Your task to perform on an android device: Do I have any events this weekend? Image 0: 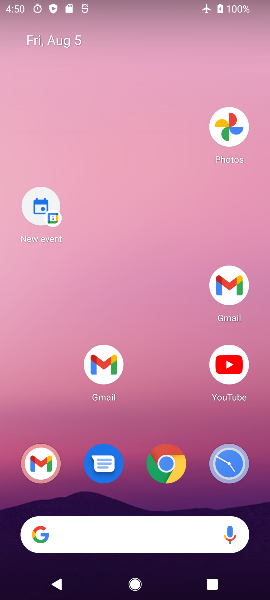
Step 0: drag from (160, 570) to (45, 88)
Your task to perform on an android device: Do I have any events this weekend? Image 1: 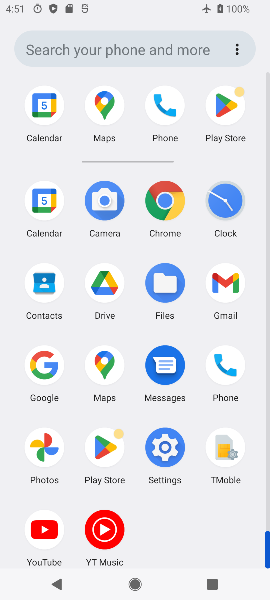
Step 1: click (43, 109)
Your task to perform on an android device: Do I have any events this weekend? Image 2: 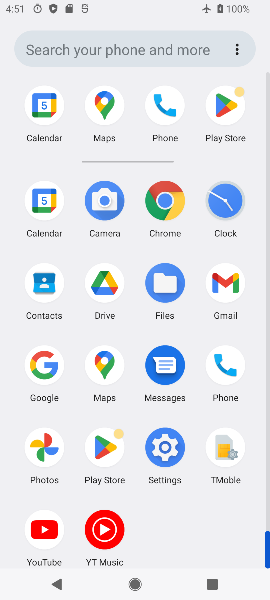
Step 2: click (43, 109)
Your task to perform on an android device: Do I have any events this weekend? Image 3: 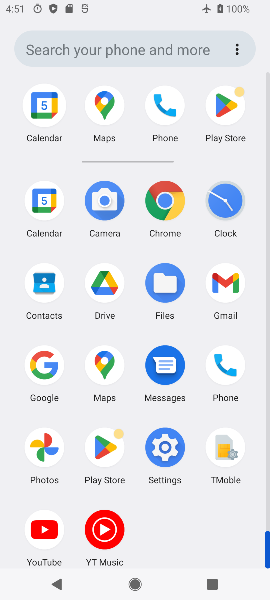
Step 3: click (42, 108)
Your task to perform on an android device: Do I have any events this weekend? Image 4: 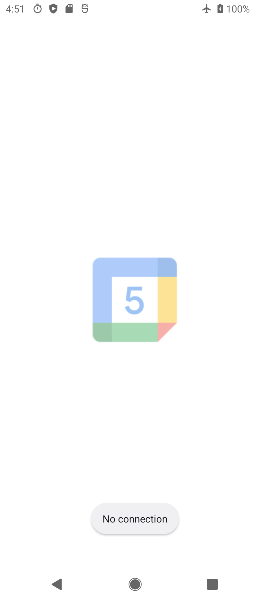
Step 4: click (42, 108)
Your task to perform on an android device: Do I have any events this weekend? Image 5: 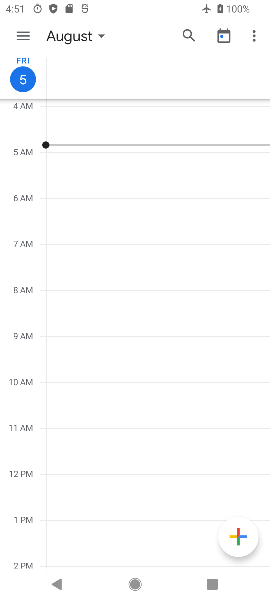
Step 5: click (97, 36)
Your task to perform on an android device: Do I have any events this weekend? Image 6: 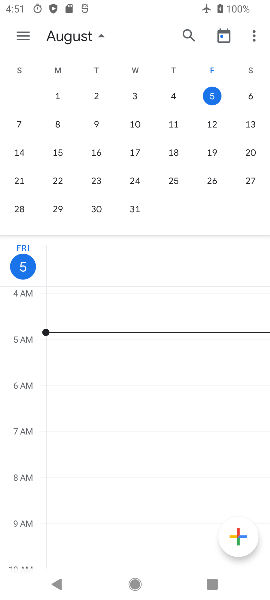
Step 6: click (246, 92)
Your task to perform on an android device: Do I have any events this weekend? Image 7: 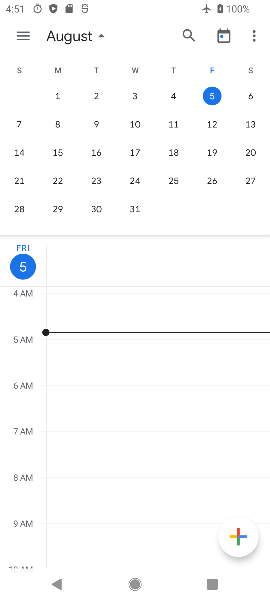
Step 7: click (246, 92)
Your task to perform on an android device: Do I have any events this weekend? Image 8: 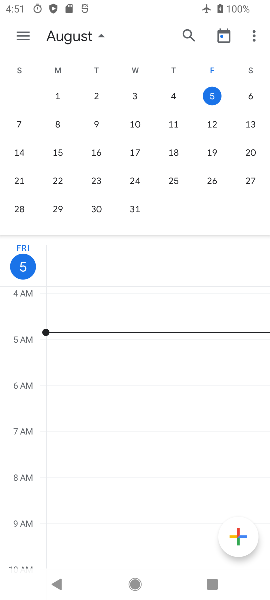
Step 8: click (246, 92)
Your task to perform on an android device: Do I have any events this weekend? Image 9: 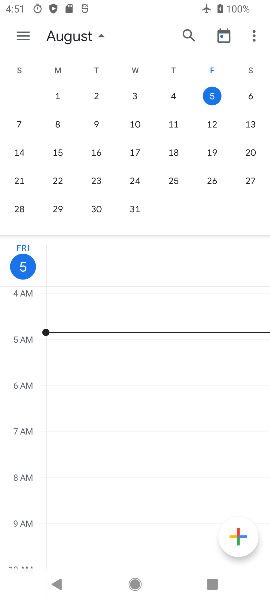
Step 9: click (246, 92)
Your task to perform on an android device: Do I have any events this weekend? Image 10: 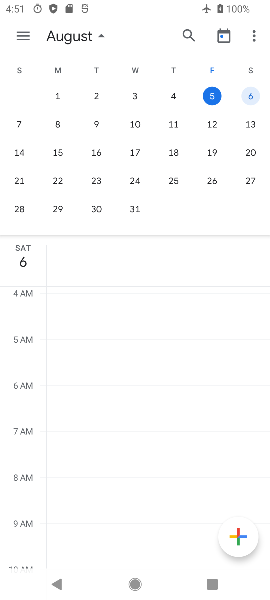
Step 10: click (247, 91)
Your task to perform on an android device: Do I have any events this weekend? Image 11: 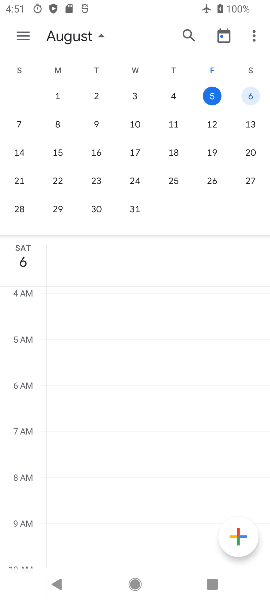
Step 11: click (249, 91)
Your task to perform on an android device: Do I have any events this weekend? Image 12: 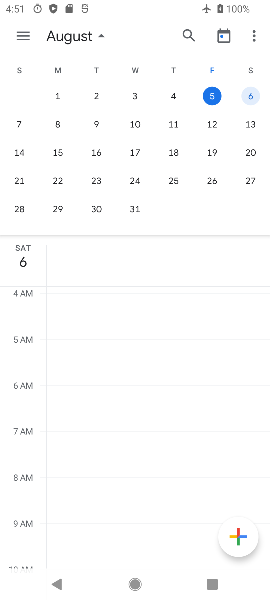
Step 12: task complete